Your task to perform on an android device: turn off smart reply in the gmail app Image 0: 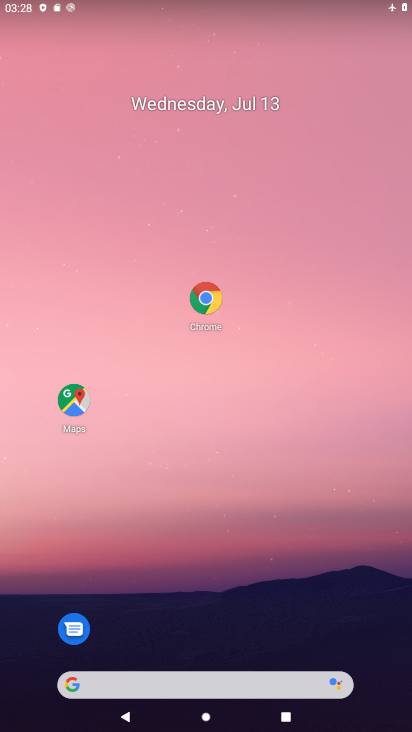
Step 0: drag from (272, 386) to (280, 244)
Your task to perform on an android device: turn off smart reply in the gmail app Image 1: 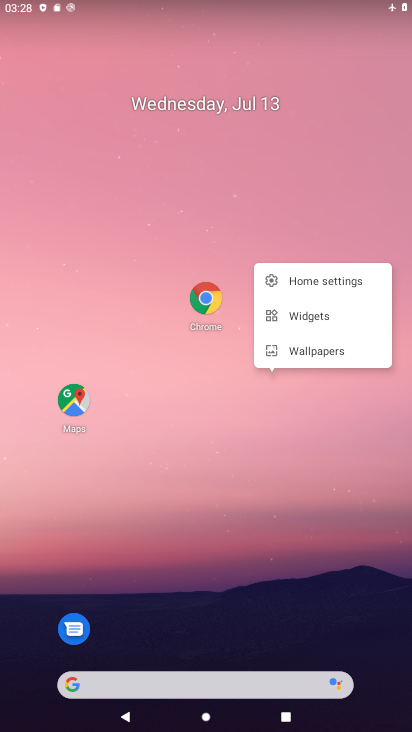
Step 1: click (142, 529)
Your task to perform on an android device: turn off smart reply in the gmail app Image 2: 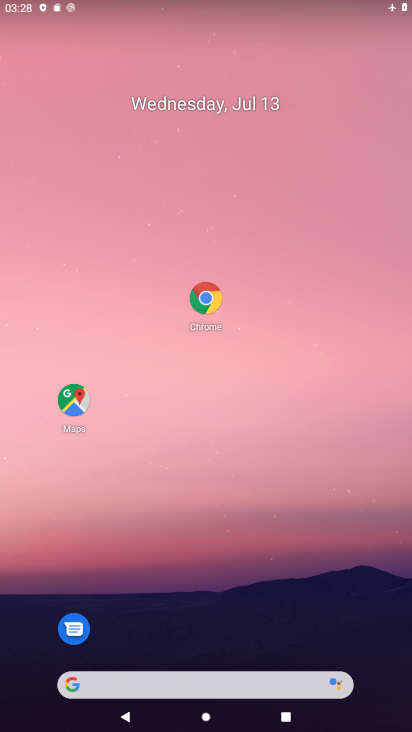
Step 2: drag from (165, 615) to (202, 247)
Your task to perform on an android device: turn off smart reply in the gmail app Image 3: 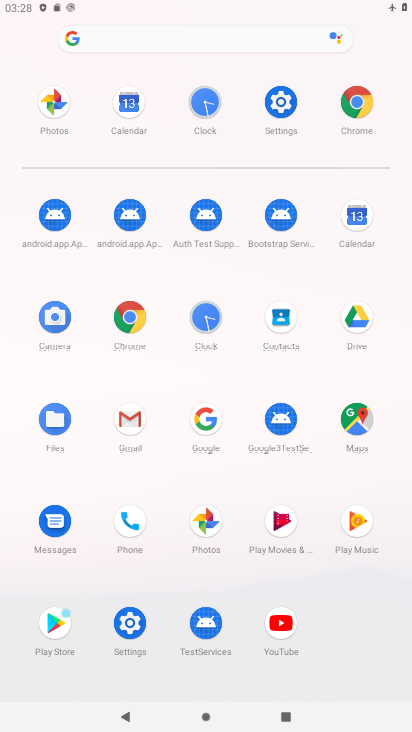
Step 3: click (131, 417)
Your task to perform on an android device: turn off smart reply in the gmail app Image 4: 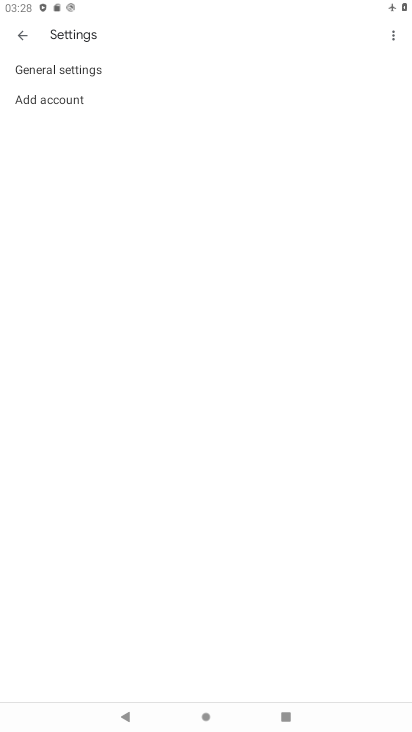
Step 4: click (21, 28)
Your task to perform on an android device: turn off smart reply in the gmail app Image 5: 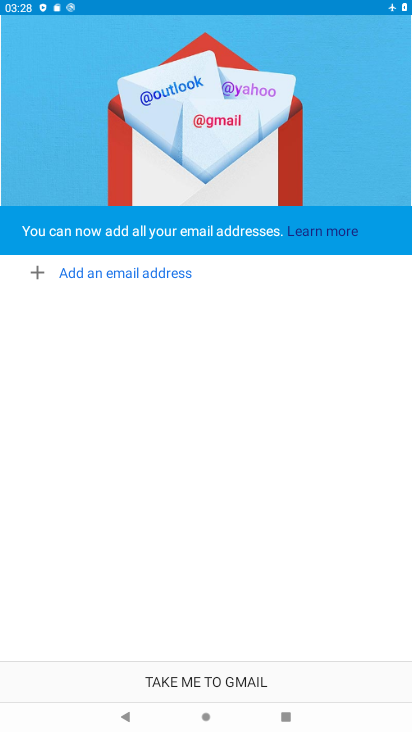
Step 5: task complete